Your task to perform on an android device: clear history in the chrome app Image 0: 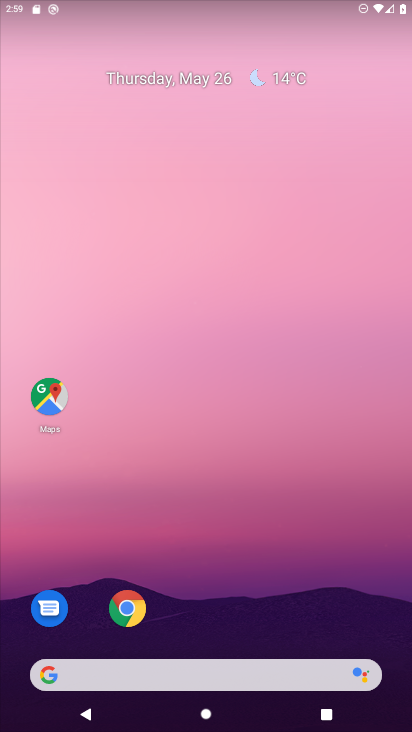
Step 0: drag from (321, 565) to (338, 88)
Your task to perform on an android device: clear history in the chrome app Image 1: 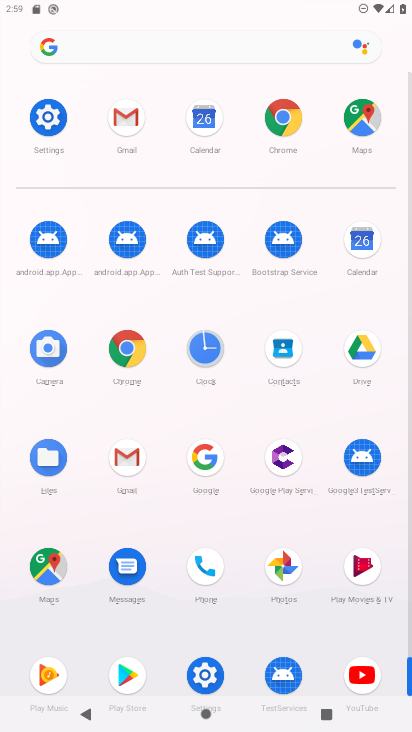
Step 1: click (303, 101)
Your task to perform on an android device: clear history in the chrome app Image 2: 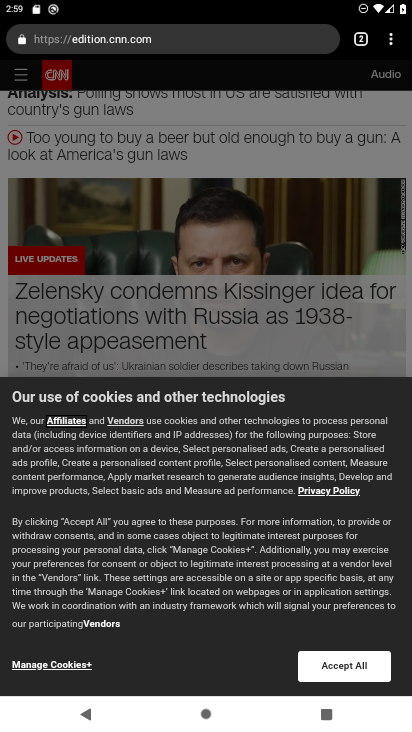
Step 2: drag from (392, 52) to (278, 233)
Your task to perform on an android device: clear history in the chrome app Image 3: 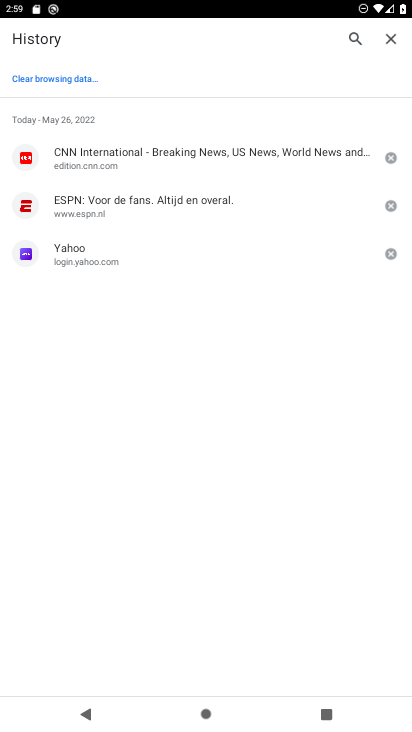
Step 3: click (51, 74)
Your task to perform on an android device: clear history in the chrome app Image 4: 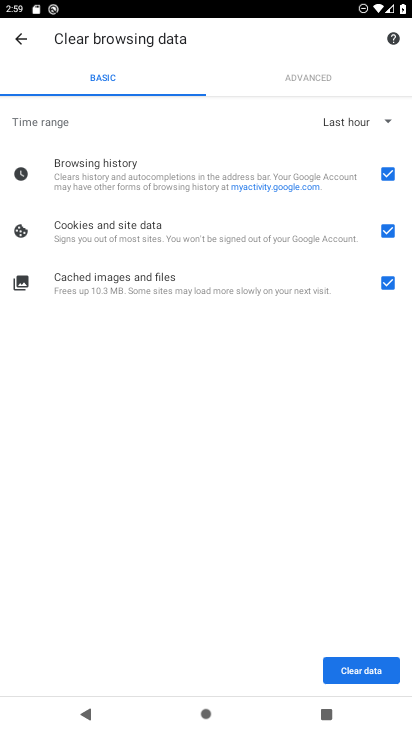
Step 4: click (383, 664)
Your task to perform on an android device: clear history in the chrome app Image 5: 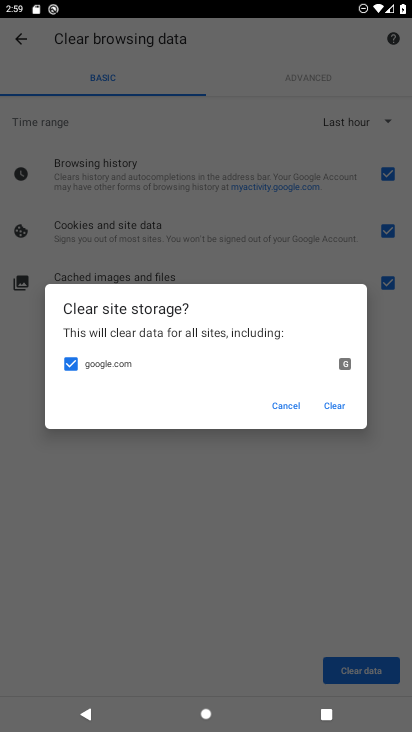
Step 5: click (346, 412)
Your task to perform on an android device: clear history in the chrome app Image 6: 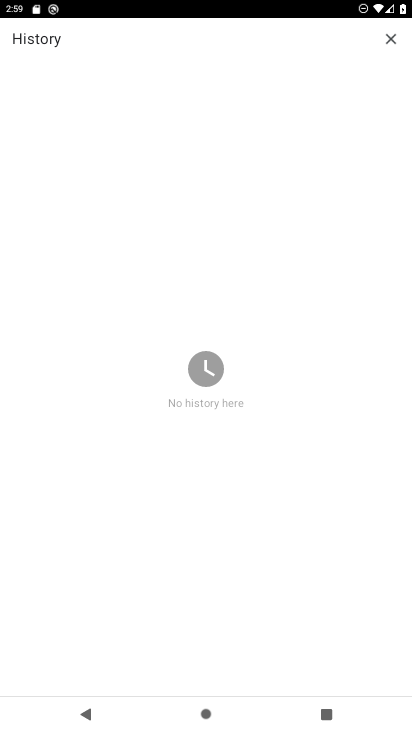
Step 6: task complete